Your task to perform on an android device: turn off priority inbox in the gmail app Image 0: 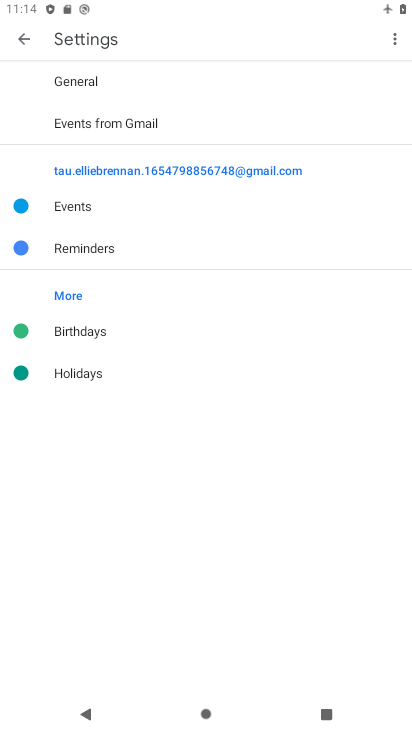
Step 0: press home button
Your task to perform on an android device: turn off priority inbox in the gmail app Image 1: 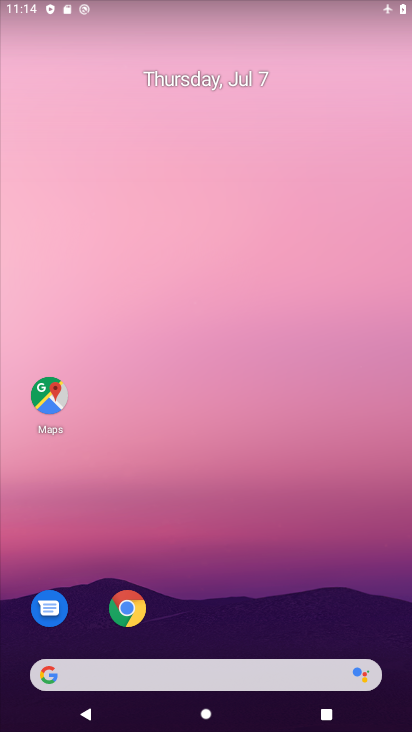
Step 1: drag from (234, 617) to (280, 7)
Your task to perform on an android device: turn off priority inbox in the gmail app Image 2: 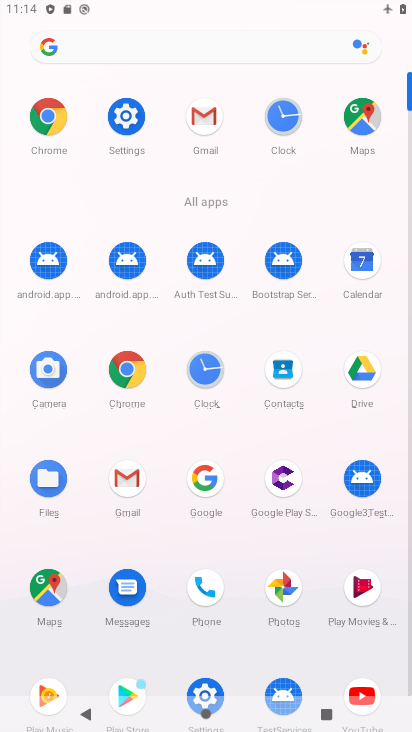
Step 2: click (128, 492)
Your task to perform on an android device: turn off priority inbox in the gmail app Image 3: 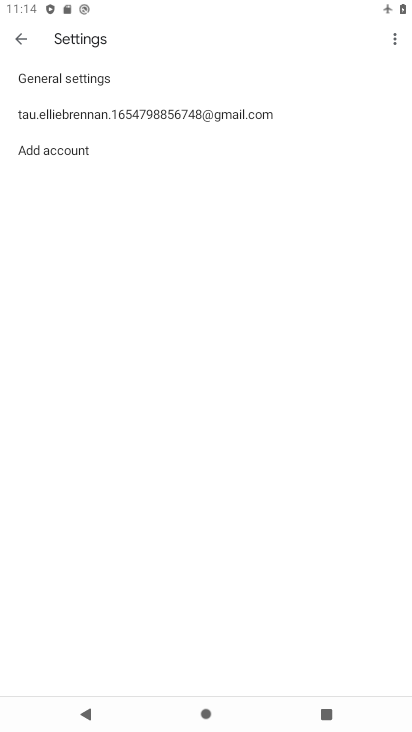
Step 3: click (79, 112)
Your task to perform on an android device: turn off priority inbox in the gmail app Image 4: 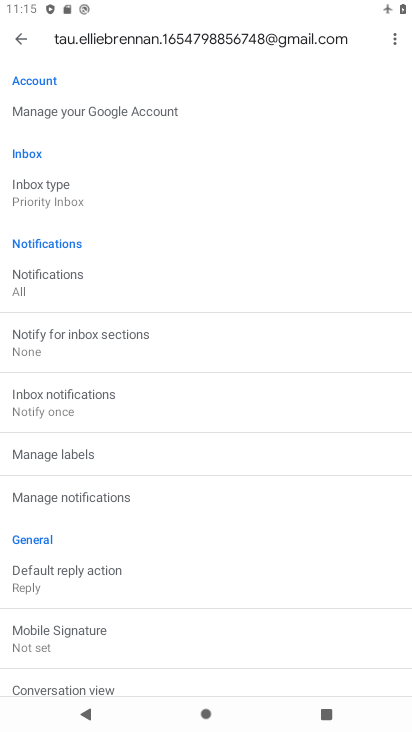
Step 4: click (69, 194)
Your task to perform on an android device: turn off priority inbox in the gmail app Image 5: 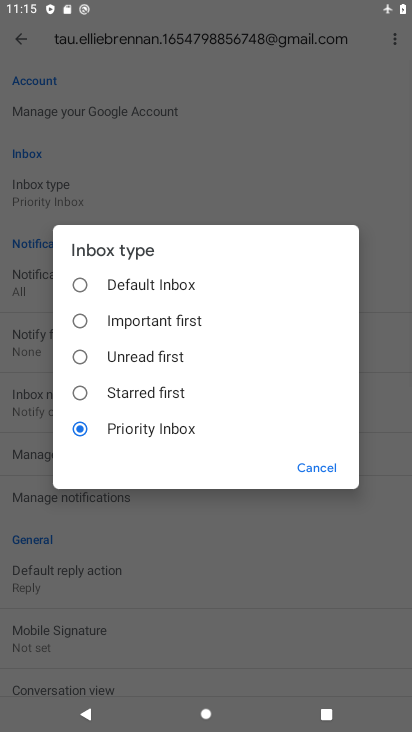
Step 5: click (154, 278)
Your task to perform on an android device: turn off priority inbox in the gmail app Image 6: 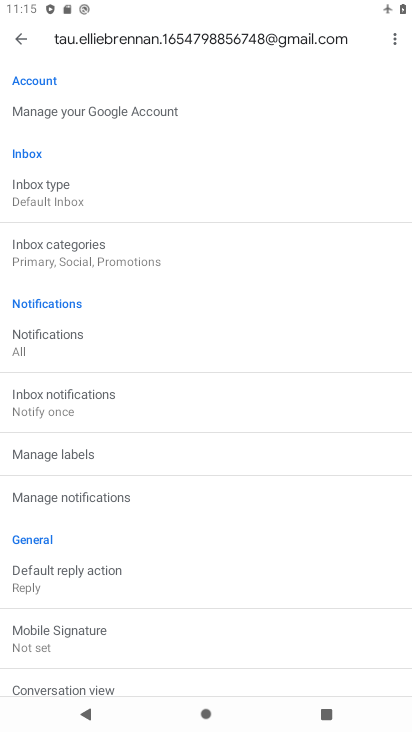
Step 6: task complete